Your task to perform on an android device: Go to display settings Image 0: 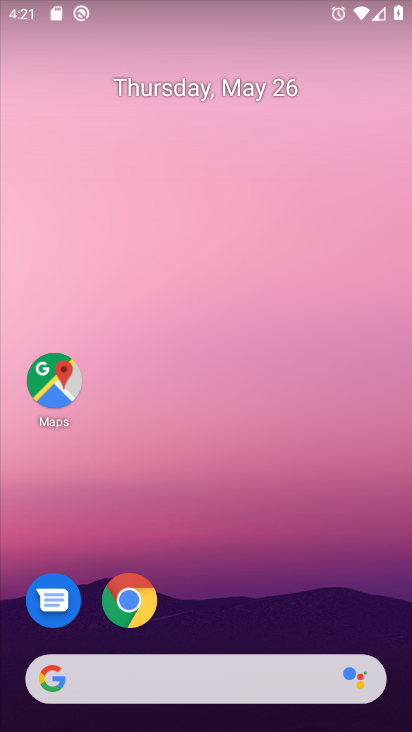
Step 0: drag from (229, 639) to (178, 5)
Your task to perform on an android device: Go to display settings Image 1: 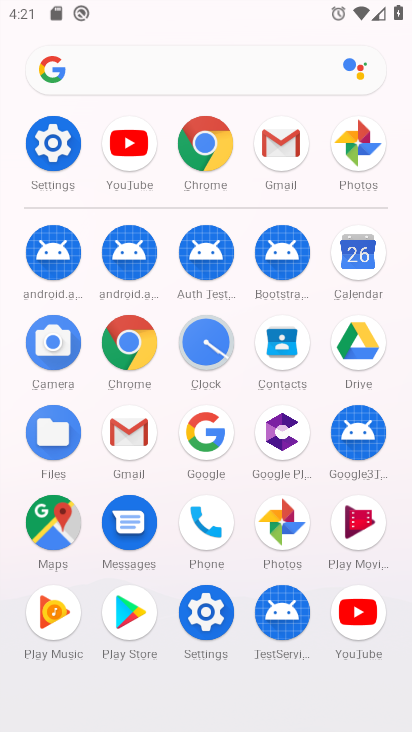
Step 1: click (210, 623)
Your task to perform on an android device: Go to display settings Image 2: 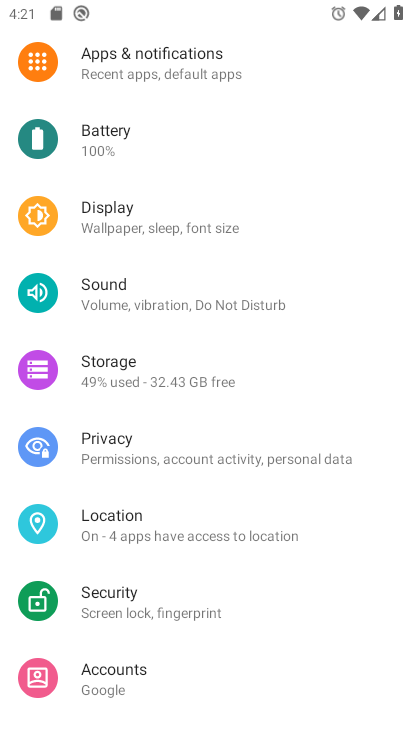
Step 2: click (138, 214)
Your task to perform on an android device: Go to display settings Image 3: 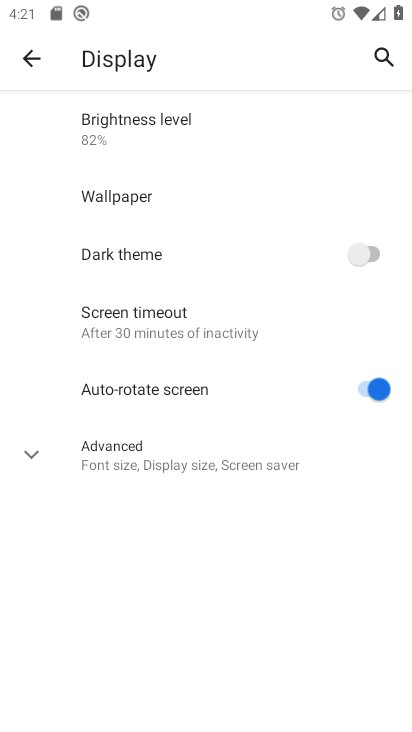
Step 3: task complete